Your task to perform on an android device: open app "NewsBreak: Local News & Alerts" (install if not already installed) and go to login screen Image 0: 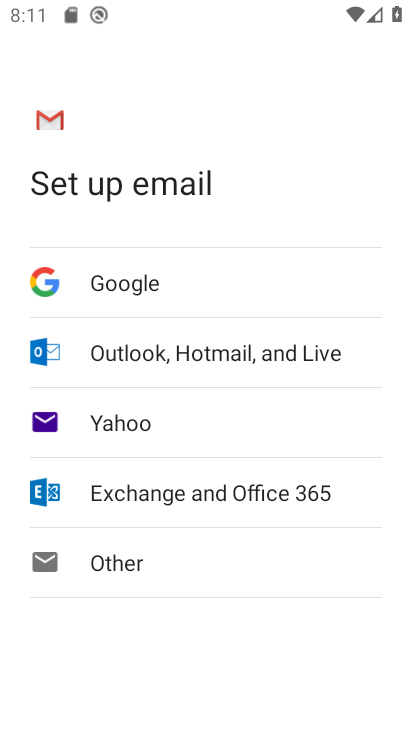
Step 0: press home button
Your task to perform on an android device: open app "NewsBreak: Local News & Alerts" (install if not already installed) and go to login screen Image 1: 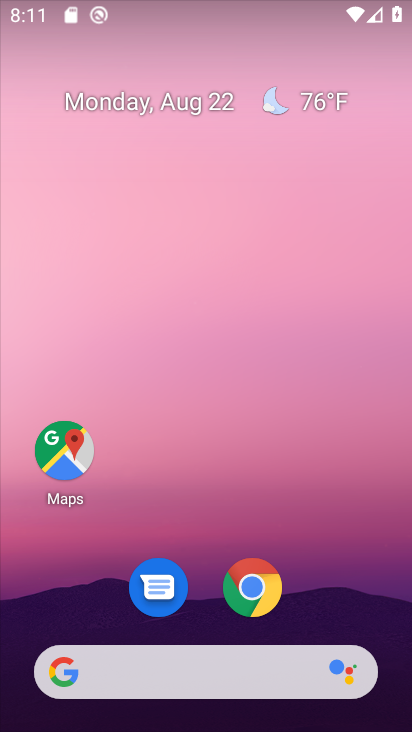
Step 1: drag from (382, 623) to (361, 72)
Your task to perform on an android device: open app "NewsBreak: Local News & Alerts" (install if not already installed) and go to login screen Image 2: 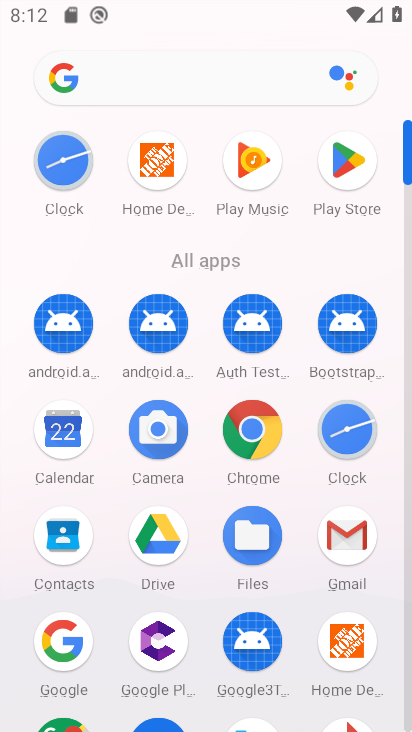
Step 2: click (408, 672)
Your task to perform on an android device: open app "NewsBreak: Local News & Alerts" (install if not already installed) and go to login screen Image 3: 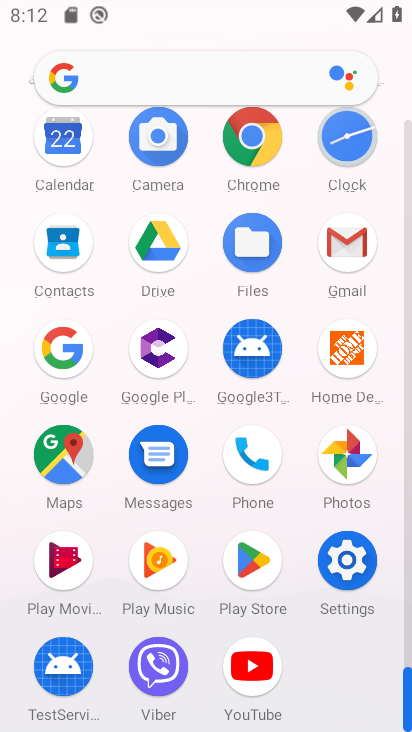
Step 3: click (255, 559)
Your task to perform on an android device: open app "NewsBreak: Local News & Alerts" (install if not already installed) and go to login screen Image 4: 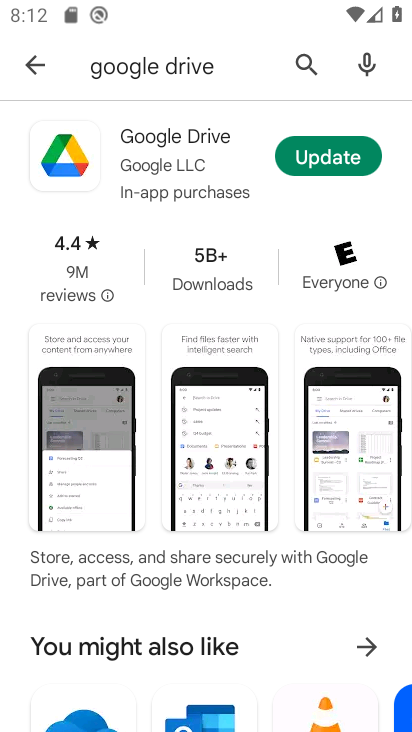
Step 4: click (305, 65)
Your task to perform on an android device: open app "NewsBreak: Local News & Alerts" (install if not already installed) and go to login screen Image 5: 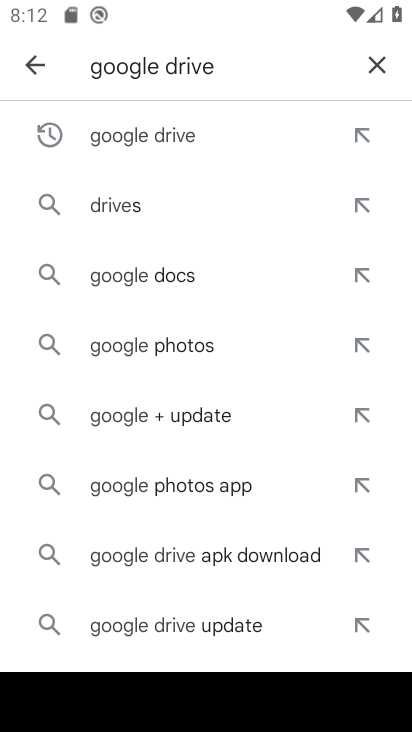
Step 5: click (379, 60)
Your task to perform on an android device: open app "NewsBreak: Local News & Alerts" (install if not already installed) and go to login screen Image 6: 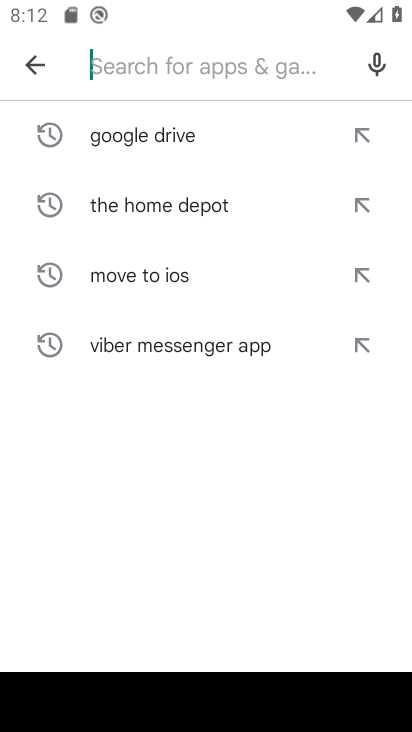
Step 6: type "news break"
Your task to perform on an android device: open app "NewsBreak: Local News & Alerts" (install if not already installed) and go to login screen Image 7: 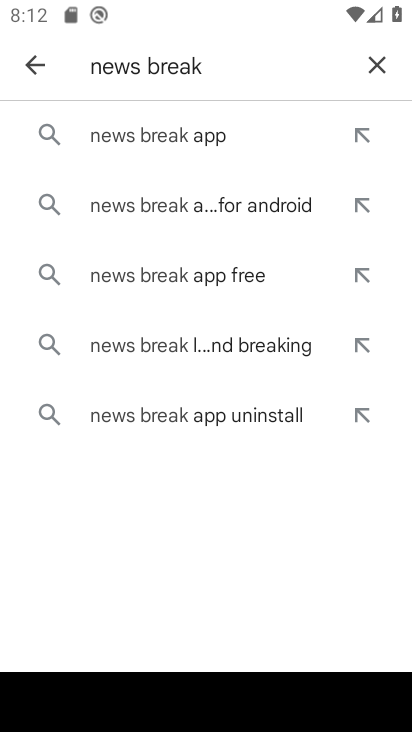
Step 7: click (138, 138)
Your task to perform on an android device: open app "NewsBreak: Local News & Alerts" (install if not already installed) and go to login screen Image 8: 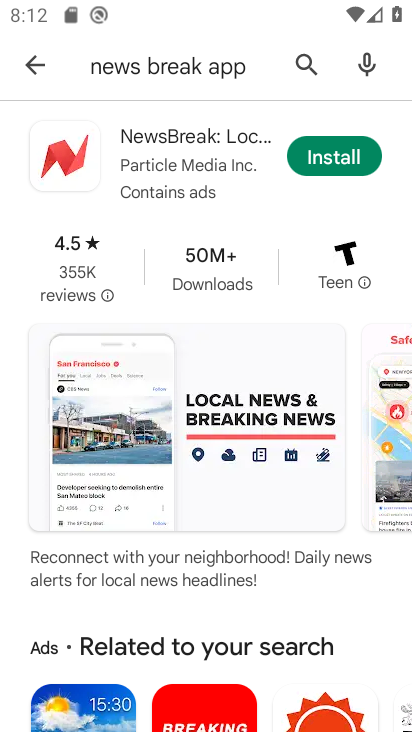
Step 8: click (335, 155)
Your task to perform on an android device: open app "NewsBreak: Local News & Alerts" (install if not already installed) and go to login screen Image 9: 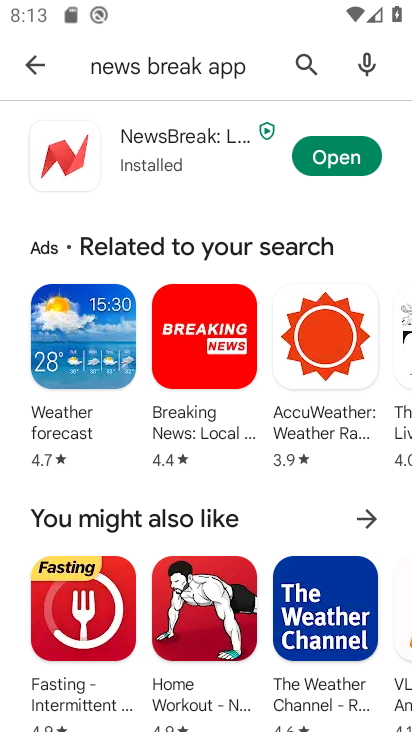
Step 9: click (331, 148)
Your task to perform on an android device: open app "NewsBreak: Local News & Alerts" (install if not already installed) and go to login screen Image 10: 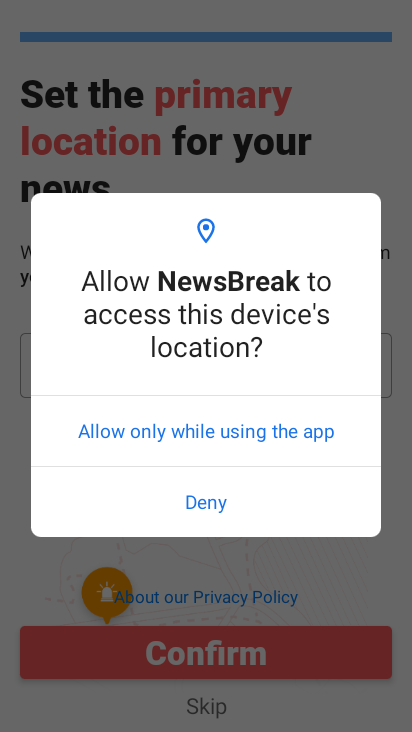
Step 10: click (180, 431)
Your task to perform on an android device: open app "NewsBreak: Local News & Alerts" (install if not already installed) and go to login screen Image 11: 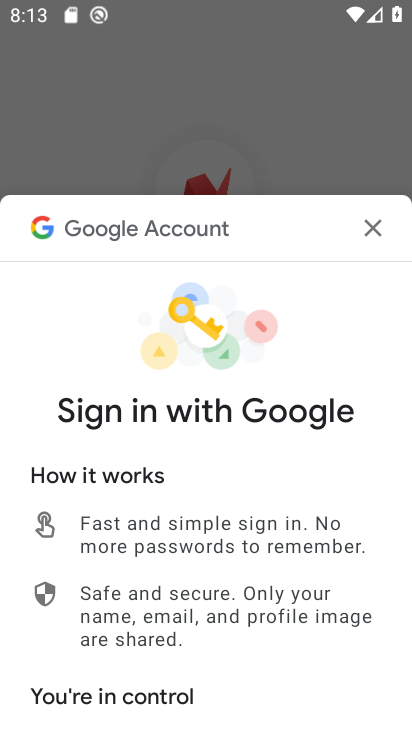
Step 11: click (371, 219)
Your task to perform on an android device: open app "NewsBreak: Local News & Alerts" (install if not already installed) and go to login screen Image 12: 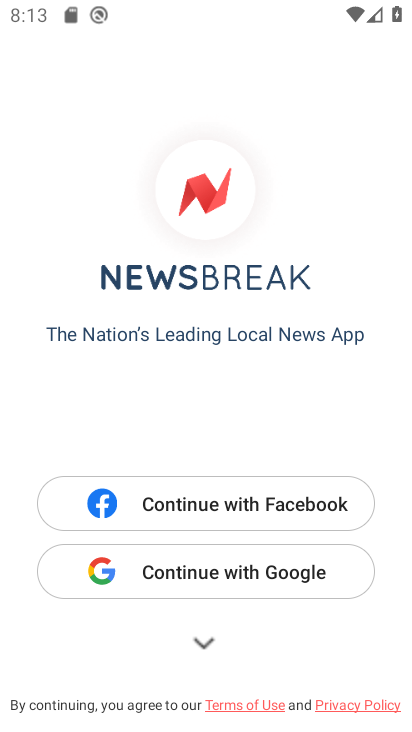
Step 12: click (199, 640)
Your task to perform on an android device: open app "NewsBreak: Local News & Alerts" (install if not already installed) and go to login screen Image 13: 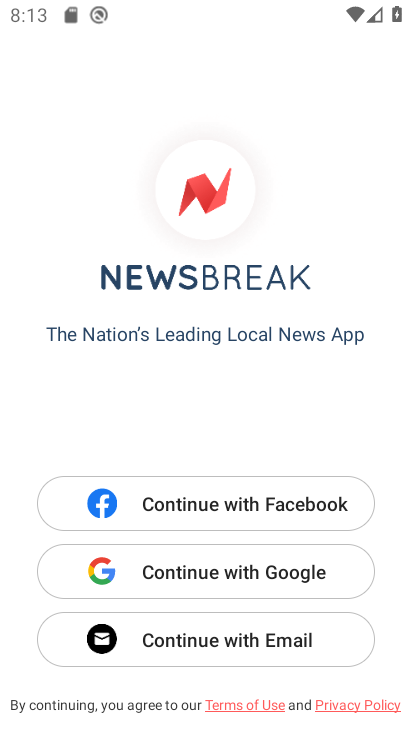
Step 13: click (203, 640)
Your task to perform on an android device: open app "NewsBreak: Local News & Alerts" (install if not already installed) and go to login screen Image 14: 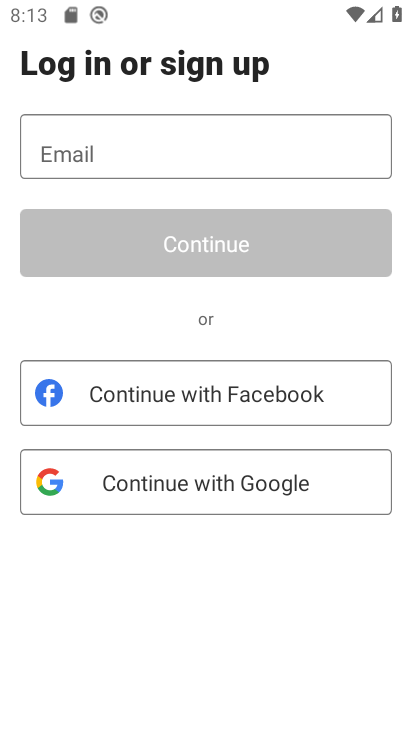
Step 14: task complete